Your task to perform on an android device: change notifications settings Image 0: 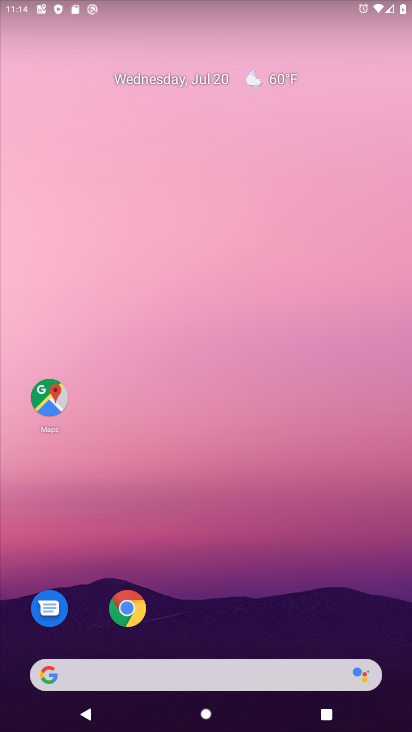
Step 0: drag from (299, 564) to (283, 49)
Your task to perform on an android device: change notifications settings Image 1: 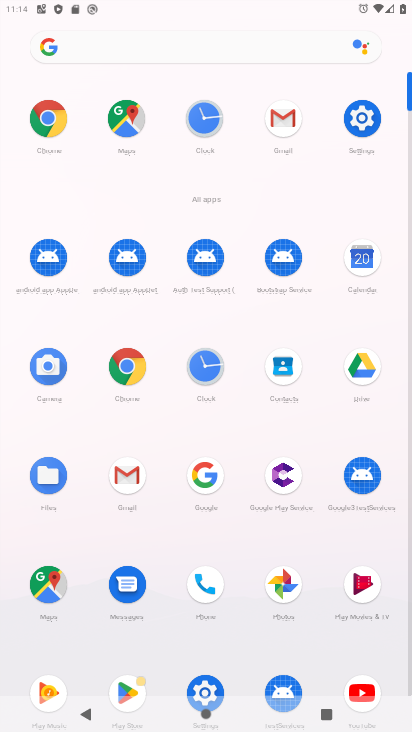
Step 1: click (352, 117)
Your task to perform on an android device: change notifications settings Image 2: 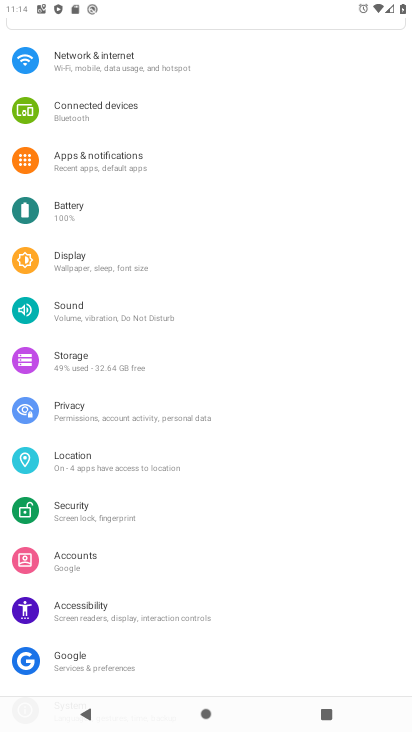
Step 2: click (121, 167)
Your task to perform on an android device: change notifications settings Image 3: 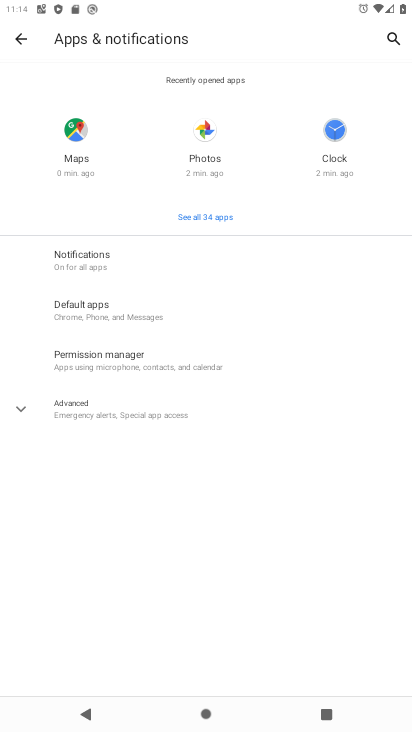
Step 3: click (117, 249)
Your task to perform on an android device: change notifications settings Image 4: 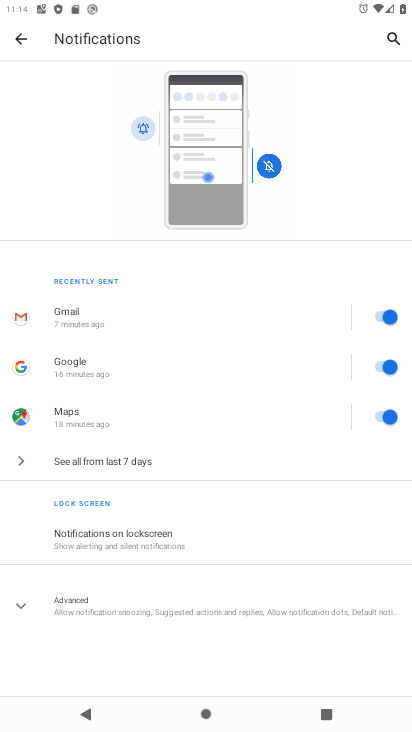
Step 4: click (111, 457)
Your task to perform on an android device: change notifications settings Image 5: 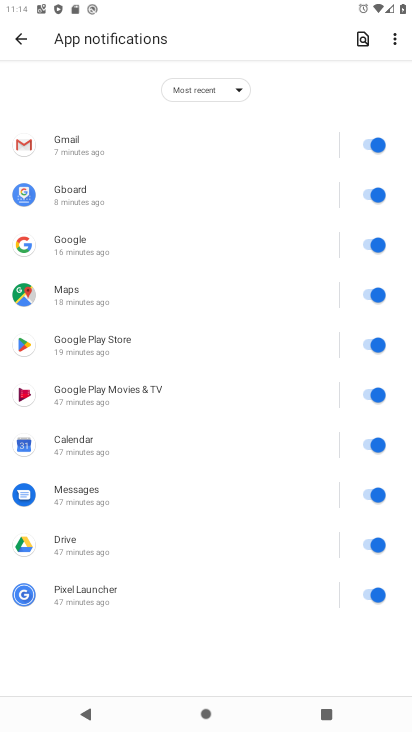
Step 5: click (361, 143)
Your task to perform on an android device: change notifications settings Image 6: 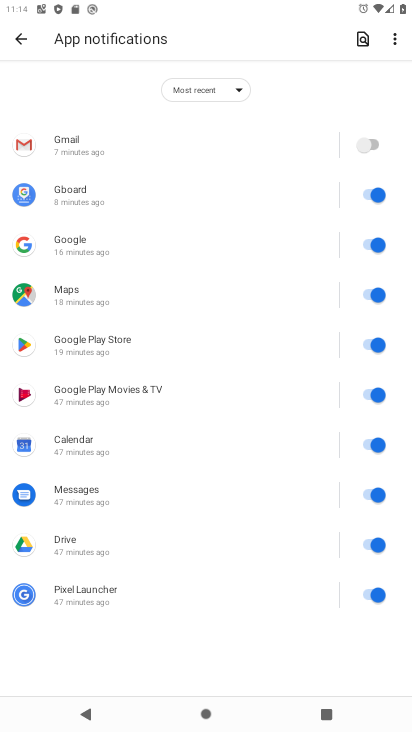
Step 6: click (367, 189)
Your task to perform on an android device: change notifications settings Image 7: 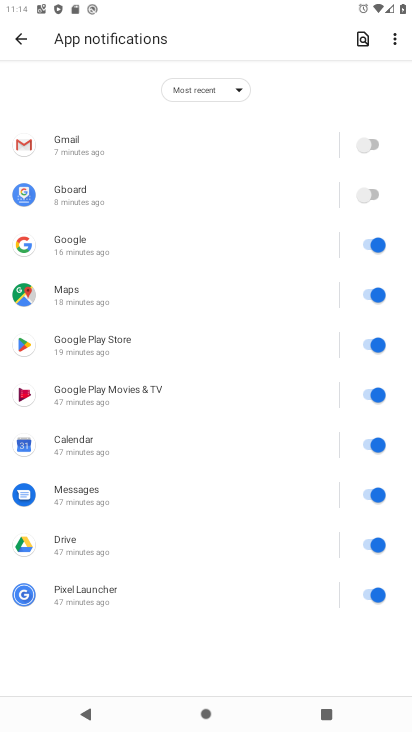
Step 7: click (368, 246)
Your task to perform on an android device: change notifications settings Image 8: 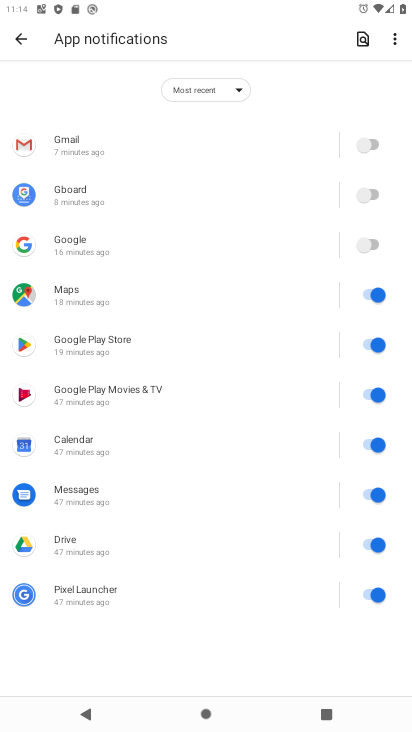
Step 8: click (368, 305)
Your task to perform on an android device: change notifications settings Image 9: 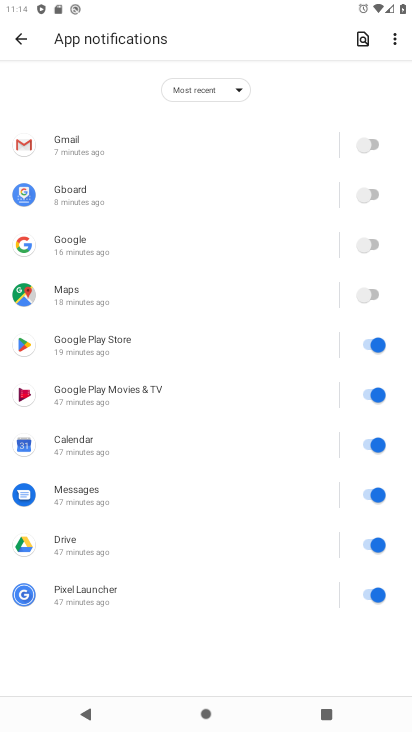
Step 9: click (368, 350)
Your task to perform on an android device: change notifications settings Image 10: 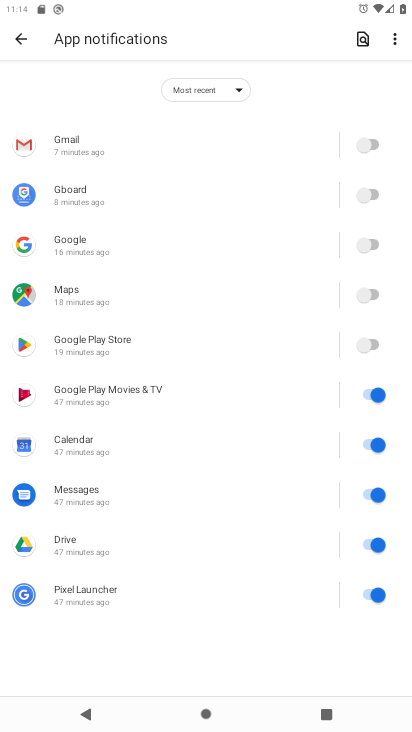
Step 10: click (370, 392)
Your task to perform on an android device: change notifications settings Image 11: 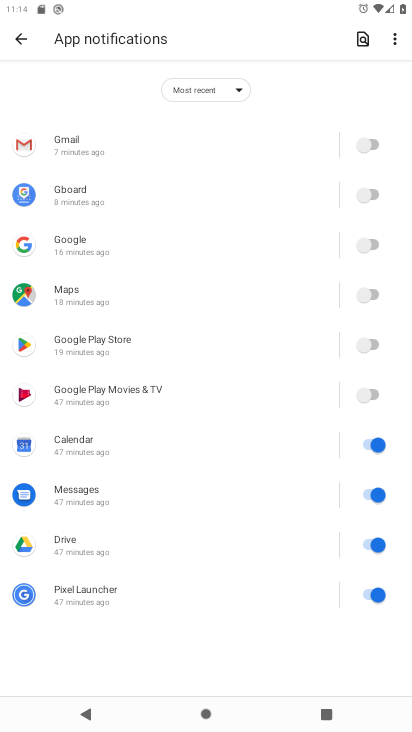
Step 11: click (367, 439)
Your task to perform on an android device: change notifications settings Image 12: 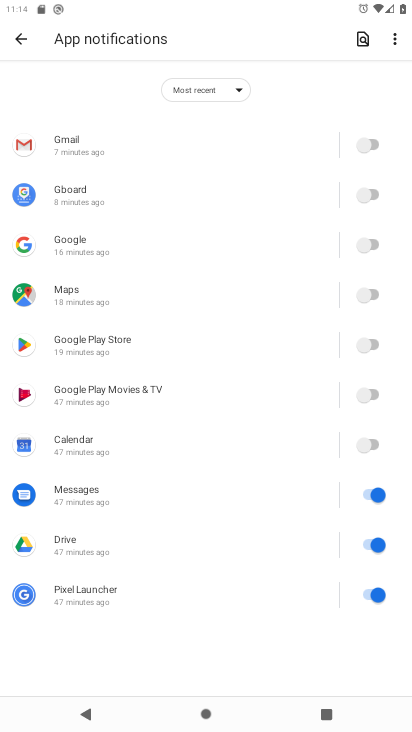
Step 12: click (367, 492)
Your task to perform on an android device: change notifications settings Image 13: 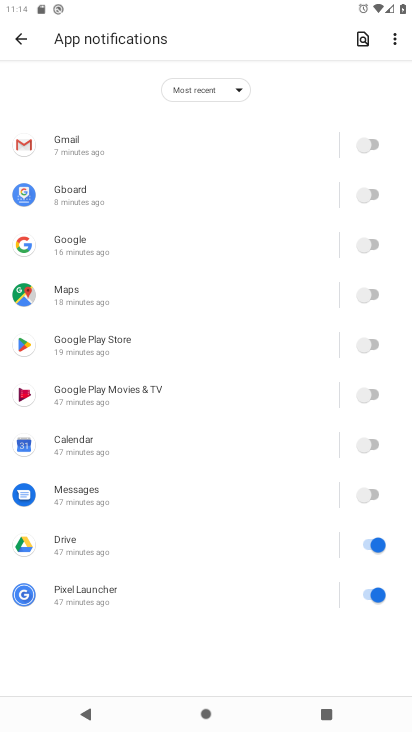
Step 13: click (369, 539)
Your task to perform on an android device: change notifications settings Image 14: 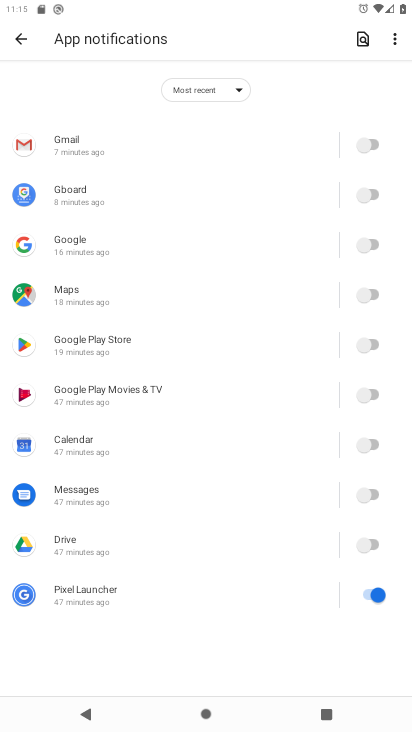
Step 14: click (372, 593)
Your task to perform on an android device: change notifications settings Image 15: 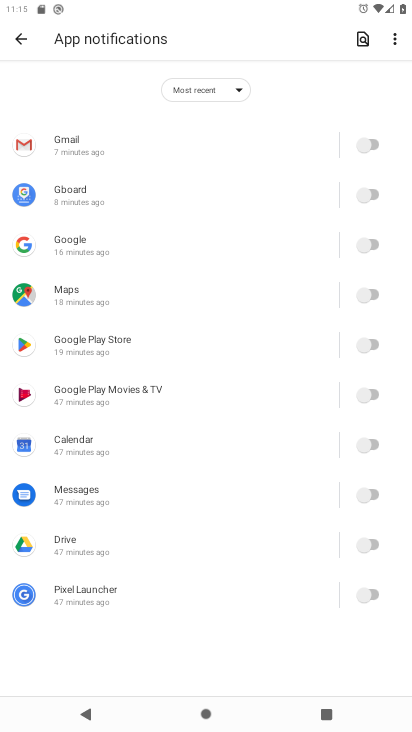
Step 15: click (16, 29)
Your task to perform on an android device: change notifications settings Image 16: 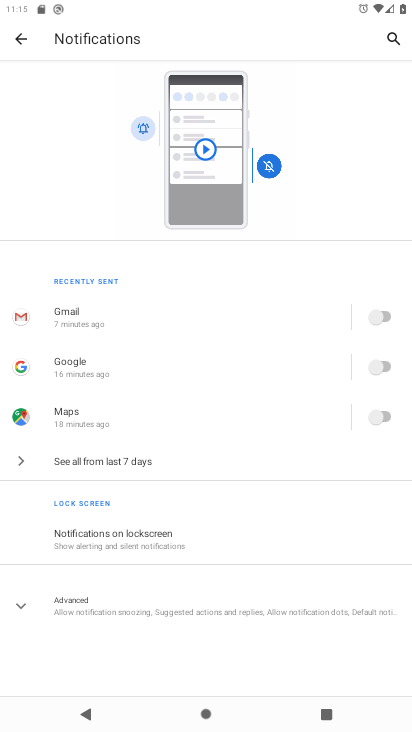
Step 16: click (170, 535)
Your task to perform on an android device: change notifications settings Image 17: 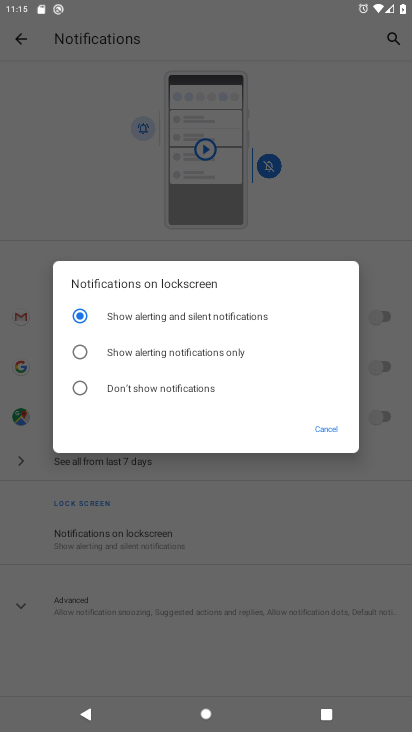
Step 17: click (187, 347)
Your task to perform on an android device: change notifications settings Image 18: 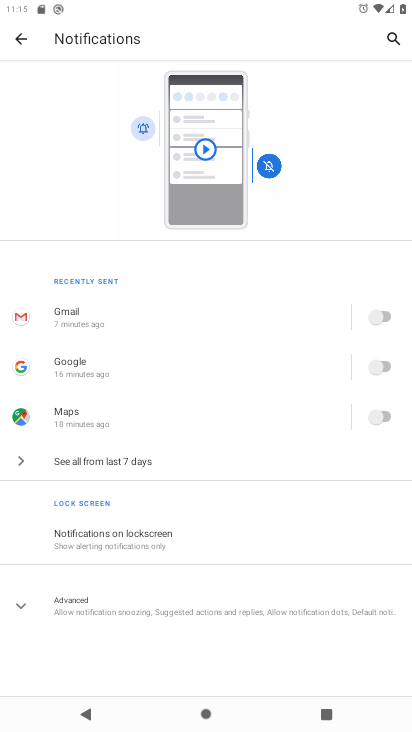
Step 18: click (140, 602)
Your task to perform on an android device: change notifications settings Image 19: 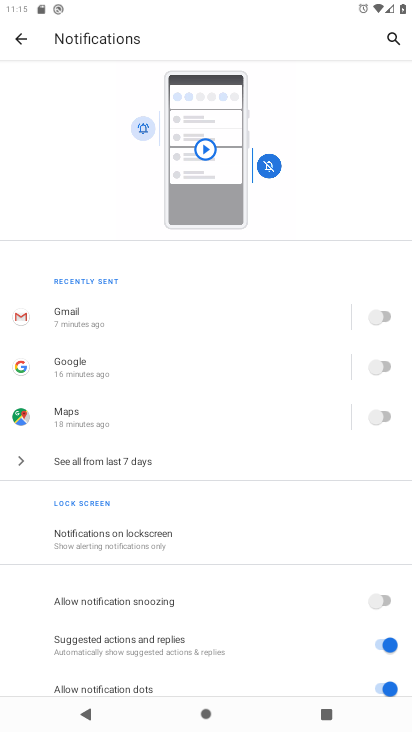
Step 19: click (371, 600)
Your task to perform on an android device: change notifications settings Image 20: 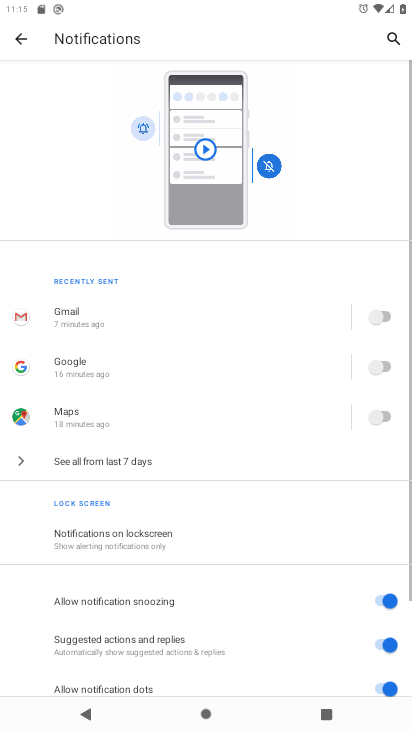
Step 20: click (384, 635)
Your task to perform on an android device: change notifications settings Image 21: 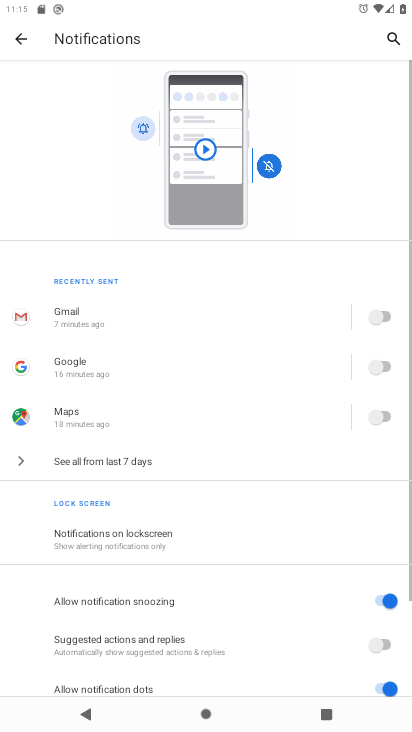
Step 21: click (384, 686)
Your task to perform on an android device: change notifications settings Image 22: 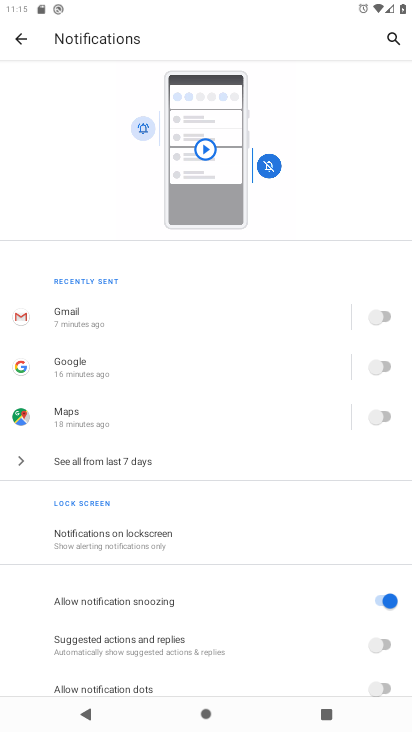
Step 22: task complete